Your task to perform on an android device: Search for razer nari on amazon.com, select the first entry, add it to the cart, then select checkout. Image 0: 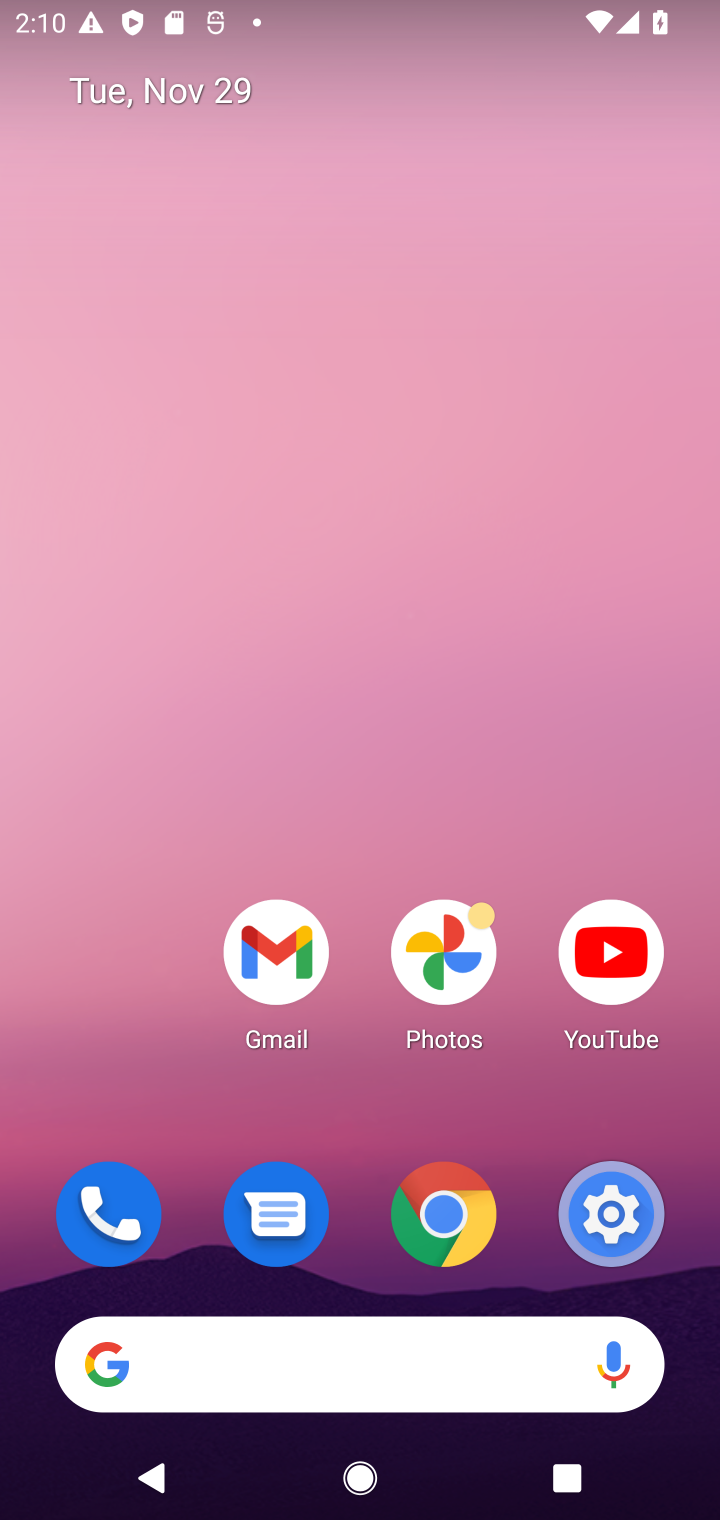
Step 0: click (357, 1384)
Your task to perform on an android device: Search for razer nari on amazon.com, select the first entry, add it to the cart, then select checkout. Image 1: 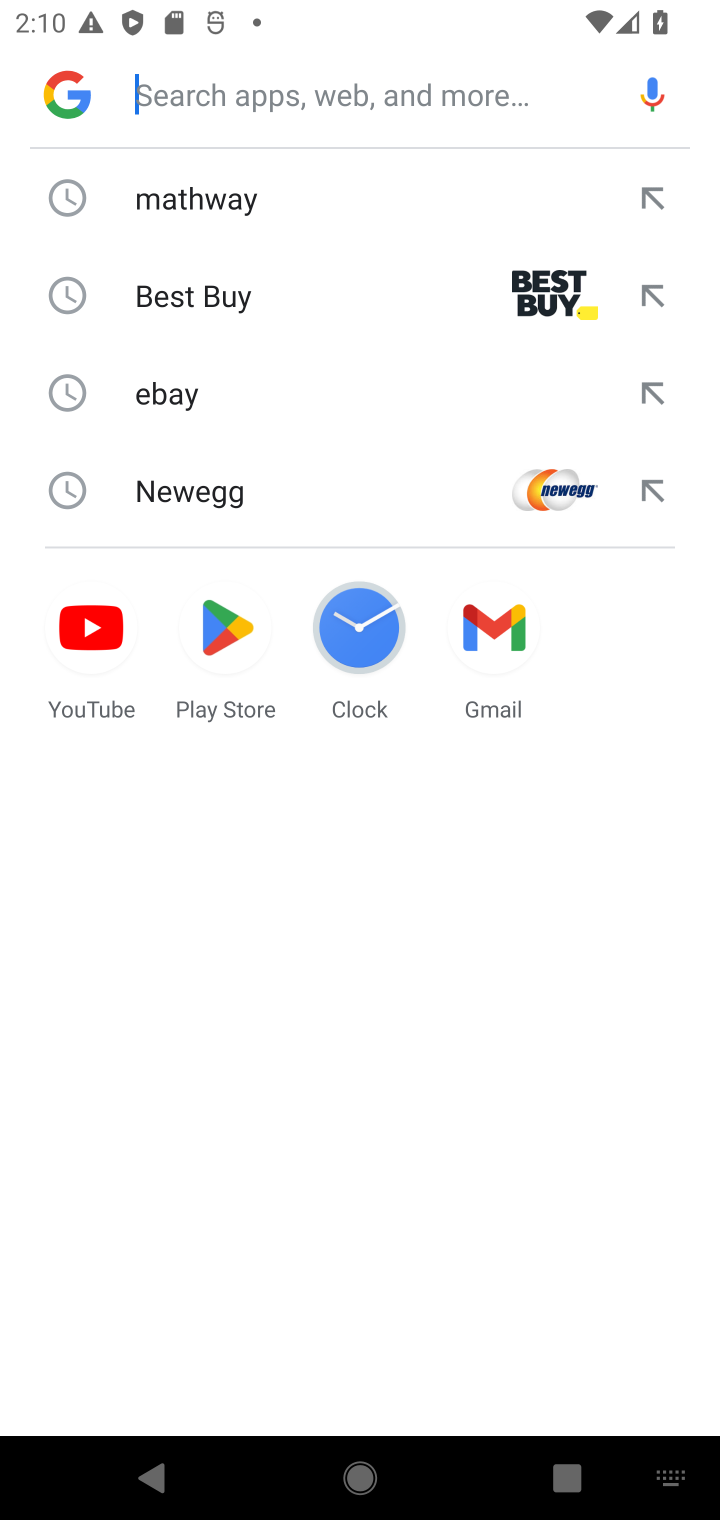
Step 1: type "amazon"
Your task to perform on an android device: Search for razer nari on amazon.com, select the first entry, add it to the cart, then select checkout. Image 2: 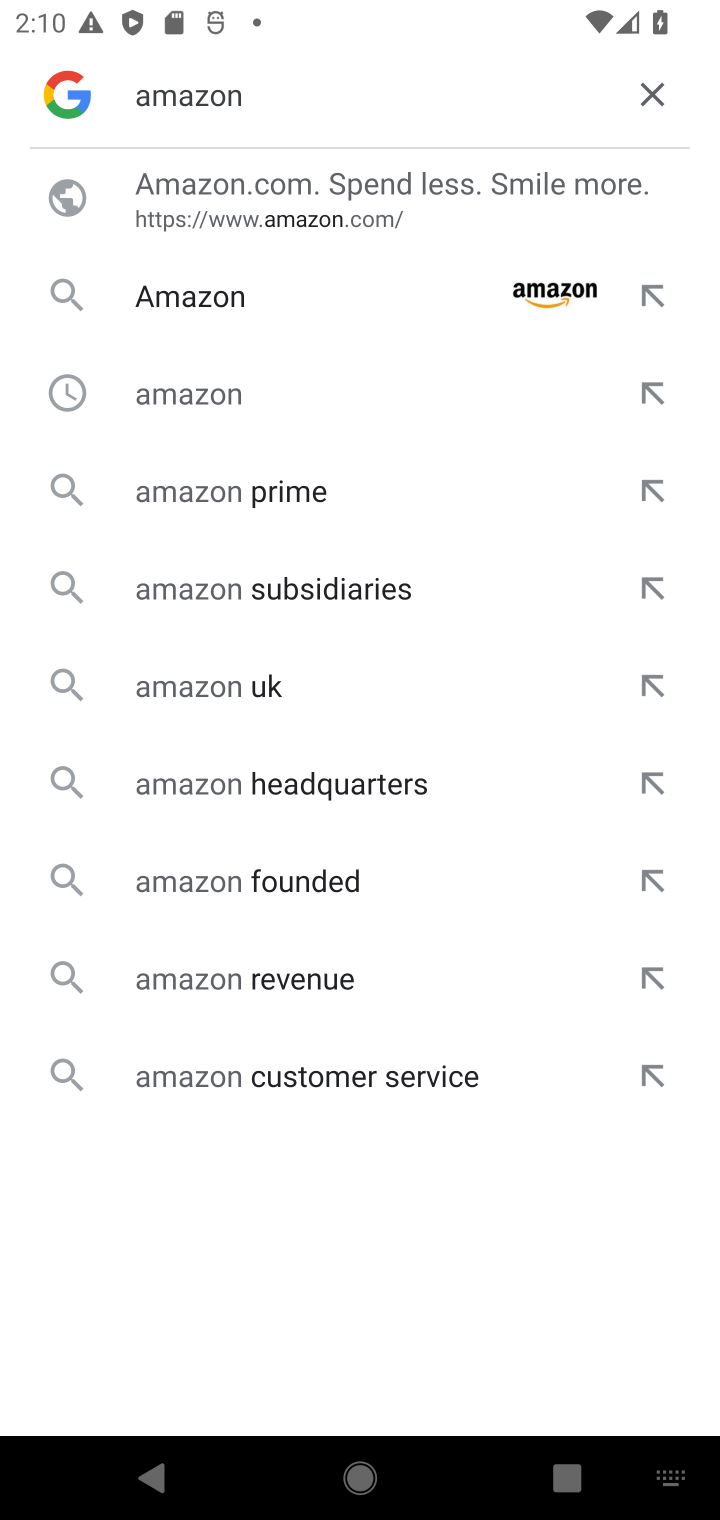
Step 2: click (317, 252)
Your task to perform on an android device: Search for razer nari on amazon.com, select the first entry, add it to the cart, then select checkout. Image 3: 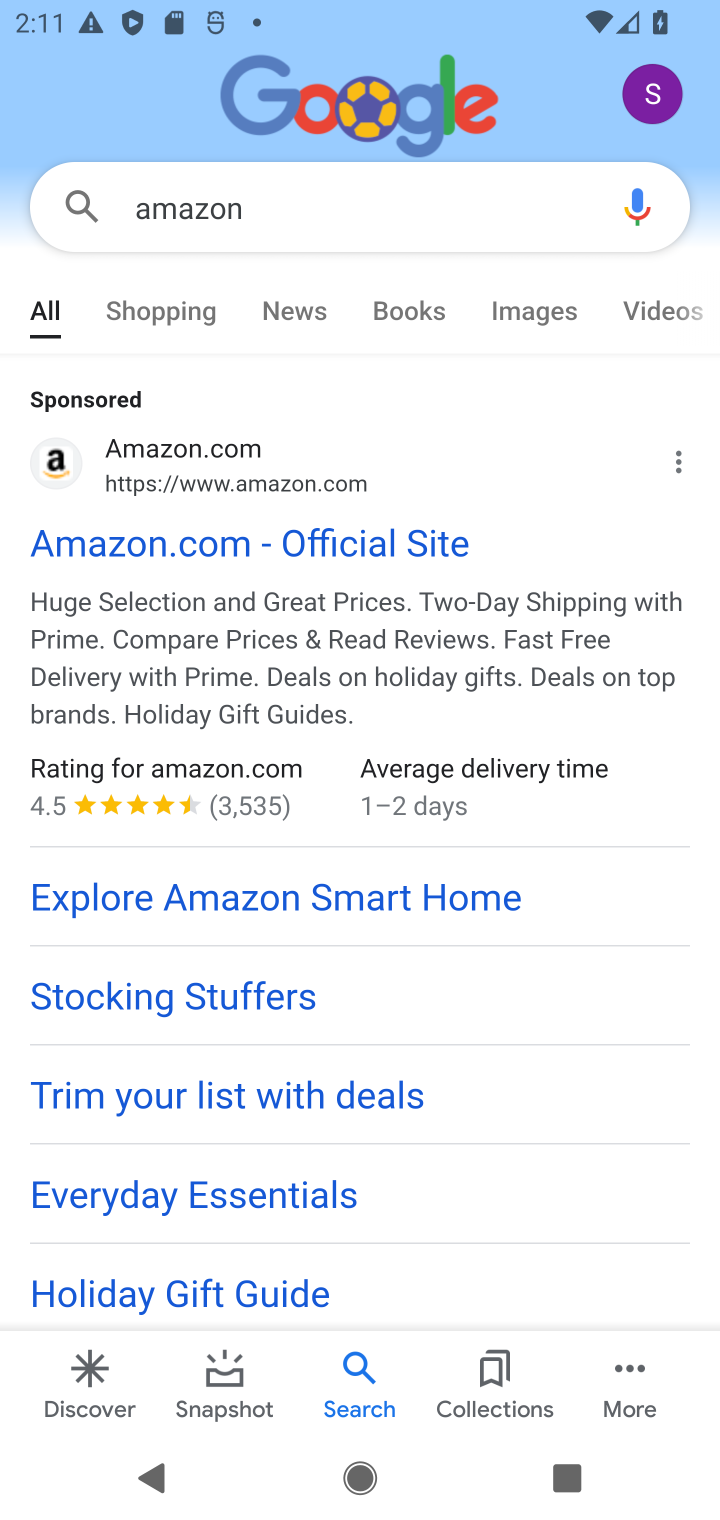
Step 3: click (188, 533)
Your task to perform on an android device: Search for razer nari on amazon.com, select the first entry, add it to the cart, then select checkout. Image 4: 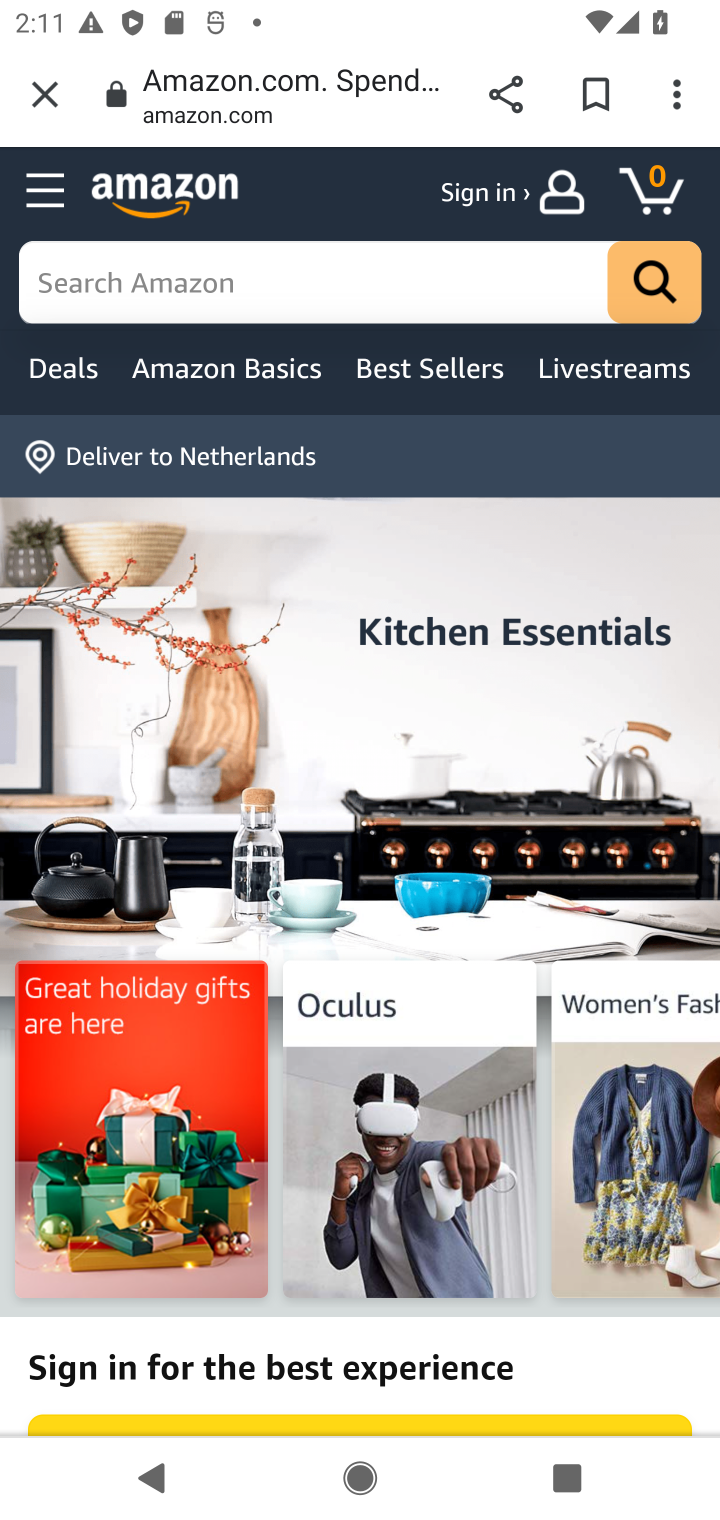
Step 4: task complete